Your task to perform on an android device: turn off picture-in-picture Image 0: 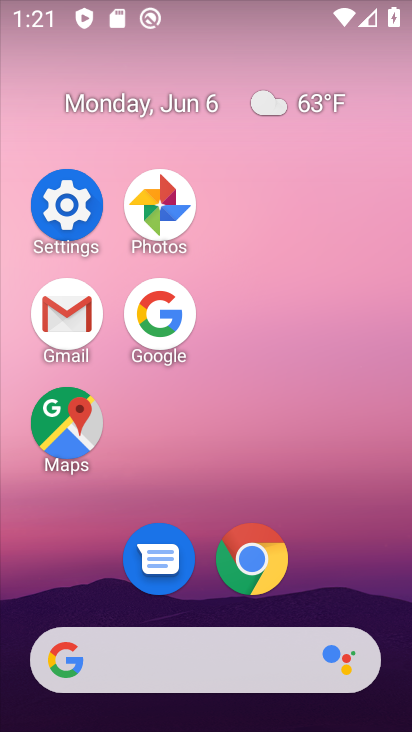
Step 0: click (259, 556)
Your task to perform on an android device: turn off picture-in-picture Image 1: 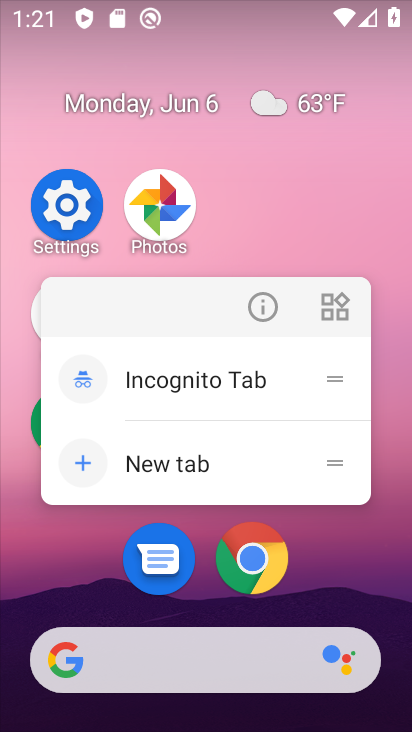
Step 1: click (274, 301)
Your task to perform on an android device: turn off picture-in-picture Image 2: 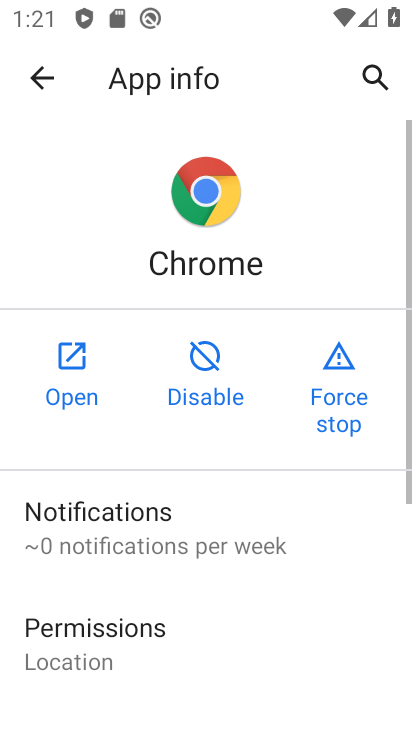
Step 2: drag from (294, 619) to (296, 221)
Your task to perform on an android device: turn off picture-in-picture Image 3: 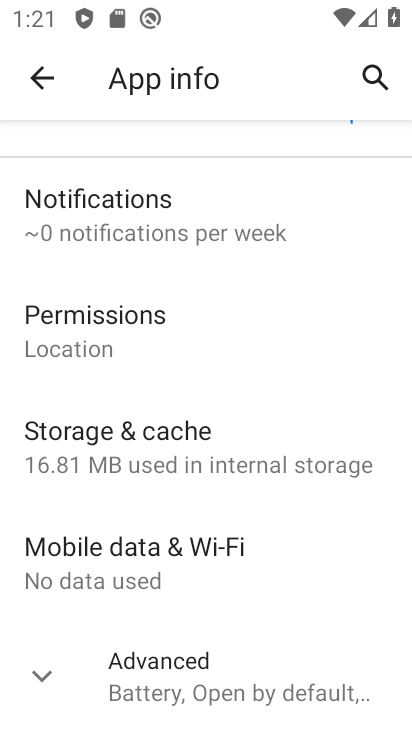
Step 3: click (266, 683)
Your task to perform on an android device: turn off picture-in-picture Image 4: 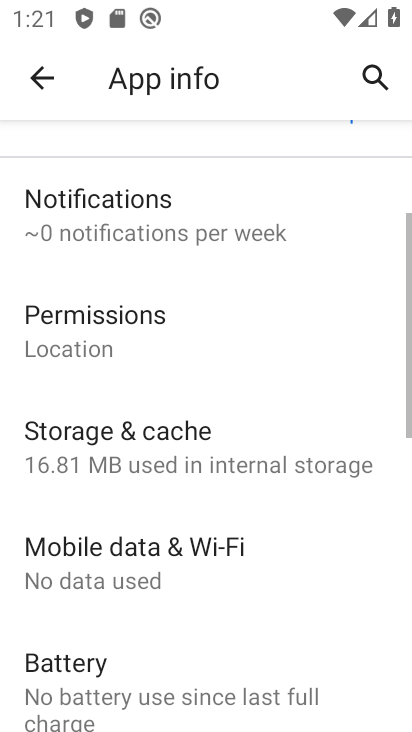
Step 4: drag from (272, 646) to (281, 350)
Your task to perform on an android device: turn off picture-in-picture Image 5: 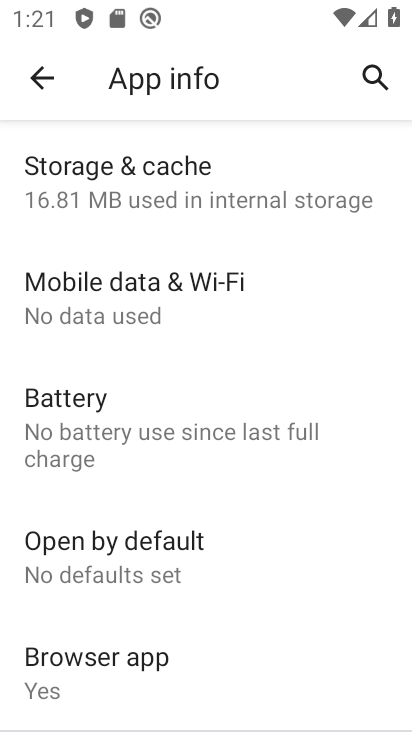
Step 5: drag from (278, 606) to (286, 250)
Your task to perform on an android device: turn off picture-in-picture Image 6: 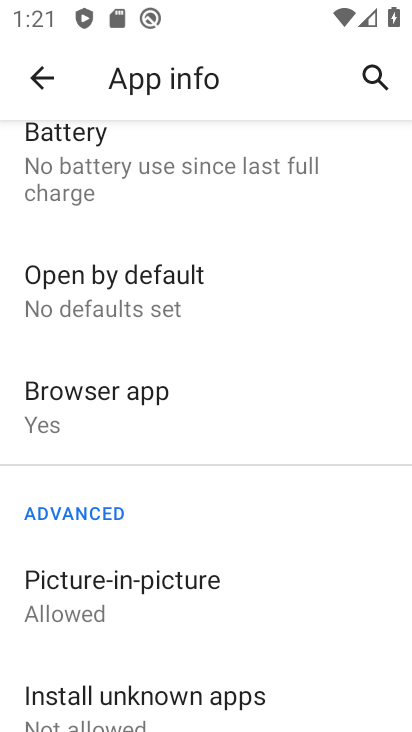
Step 6: click (240, 577)
Your task to perform on an android device: turn off picture-in-picture Image 7: 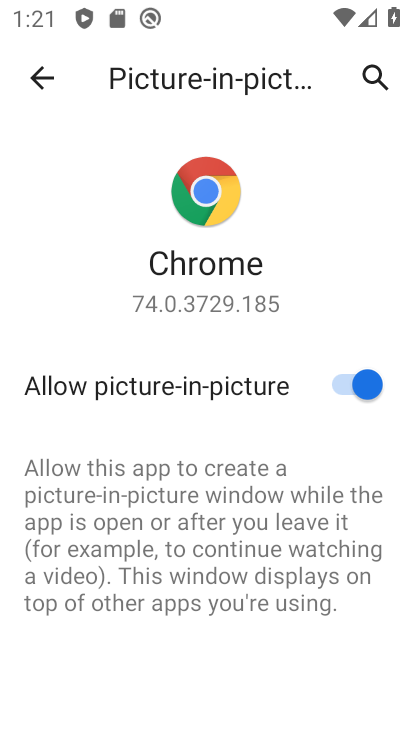
Step 7: click (354, 391)
Your task to perform on an android device: turn off picture-in-picture Image 8: 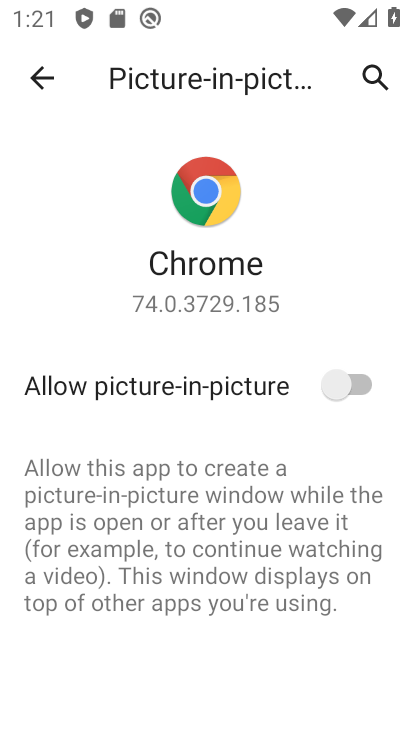
Step 8: task complete